Your task to perform on an android device: turn off priority inbox in the gmail app Image 0: 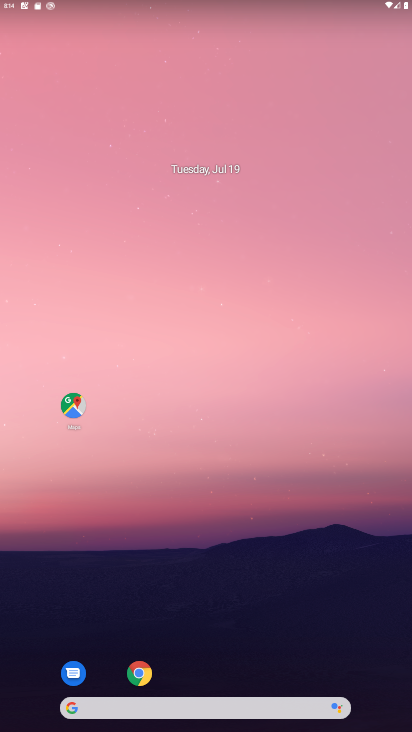
Step 0: drag from (258, 703) to (281, 81)
Your task to perform on an android device: turn off priority inbox in the gmail app Image 1: 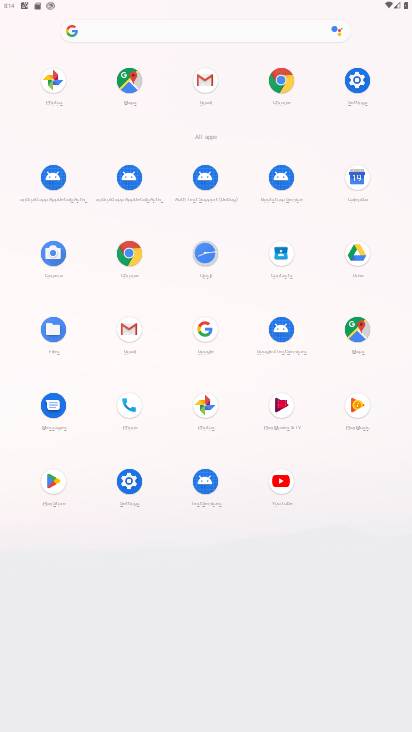
Step 1: click (138, 332)
Your task to perform on an android device: turn off priority inbox in the gmail app Image 2: 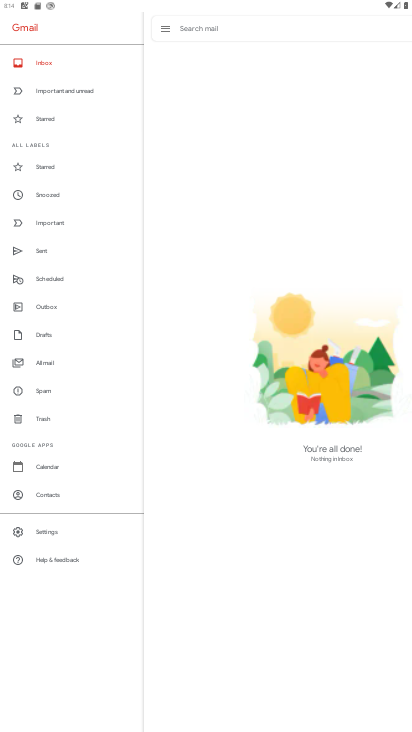
Step 2: click (47, 523)
Your task to perform on an android device: turn off priority inbox in the gmail app Image 3: 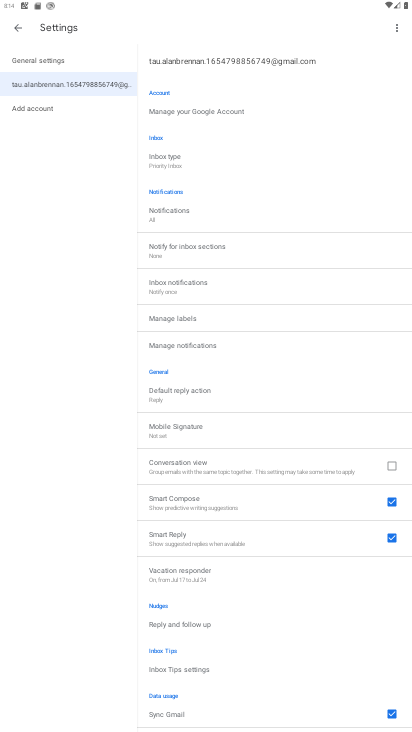
Step 3: click (197, 165)
Your task to perform on an android device: turn off priority inbox in the gmail app Image 4: 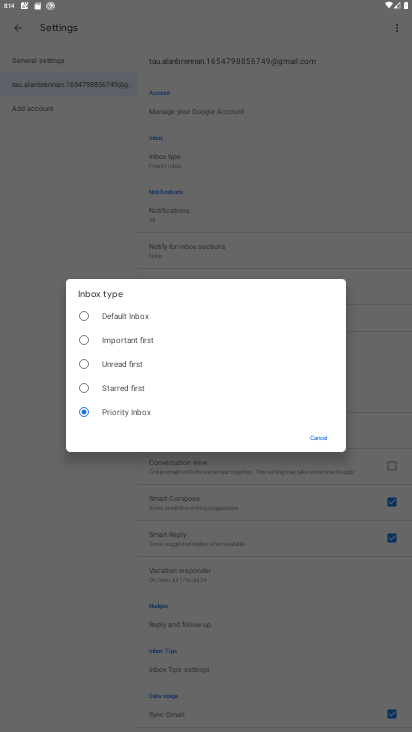
Step 4: click (96, 315)
Your task to perform on an android device: turn off priority inbox in the gmail app Image 5: 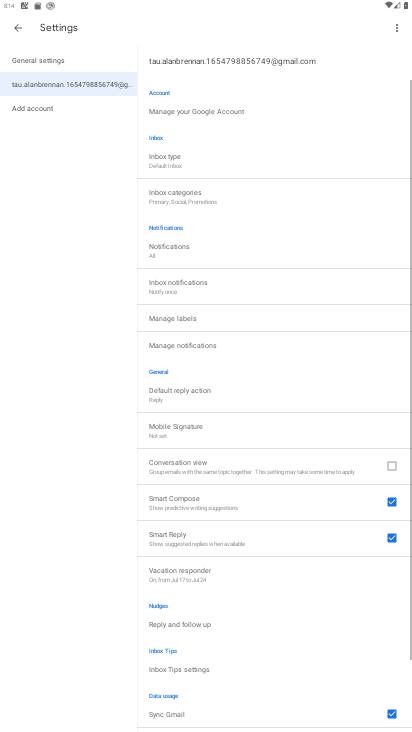
Step 5: task complete